Your task to perform on an android device: Show me recent news Image 0: 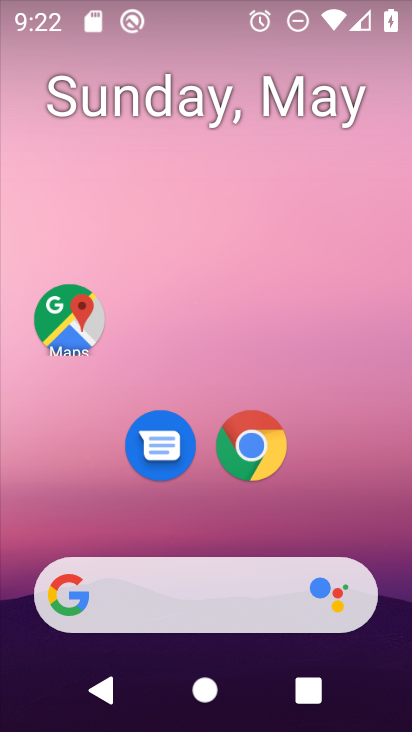
Step 0: drag from (187, 518) to (224, 243)
Your task to perform on an android device: Show me recent news Image 1: 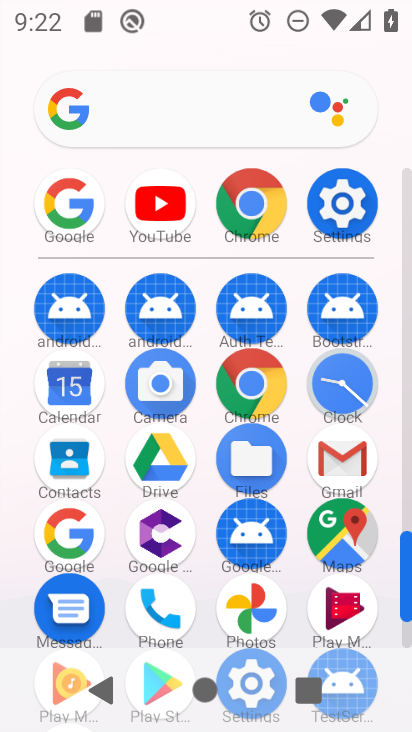
Step 1: click (89, 528)
Your task to perform on an android device: Show me recent news Image 2: 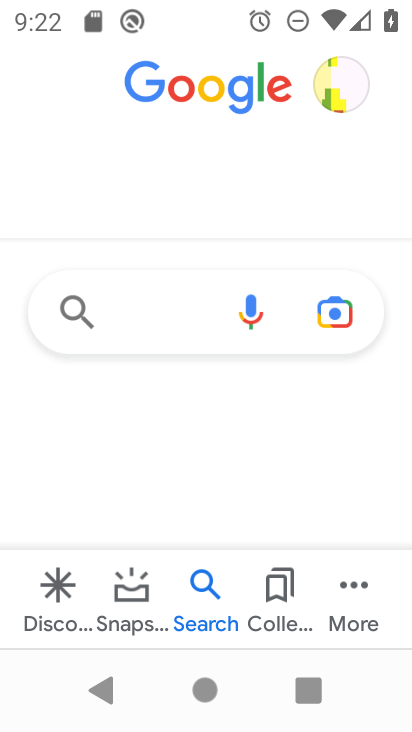
Step 2: click (189, 311)
Your task to perform on an android device: Show me recent news Image 3: 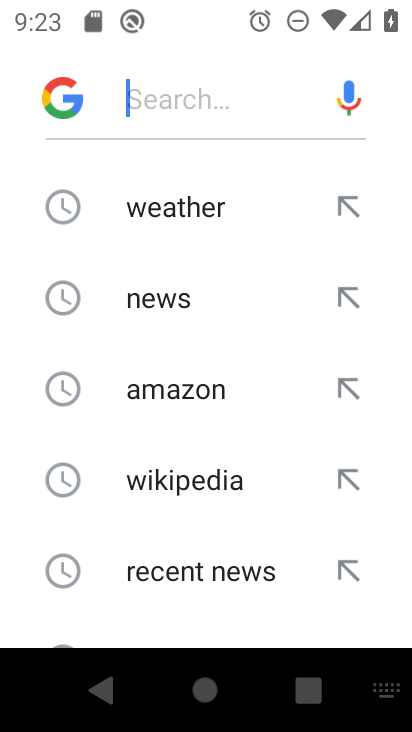
Step 3: click (206, 312)
Your task to perform on an android device: Show me recent news Image 4: 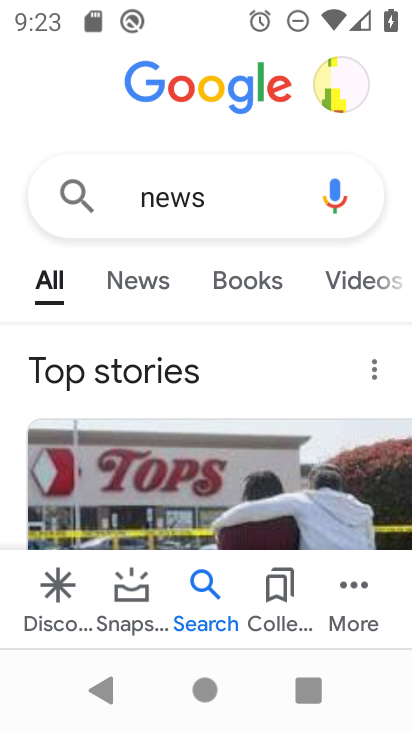
Step 4: click (140, 279)
Your task to perform on an android device: Show me recent news Image 5: 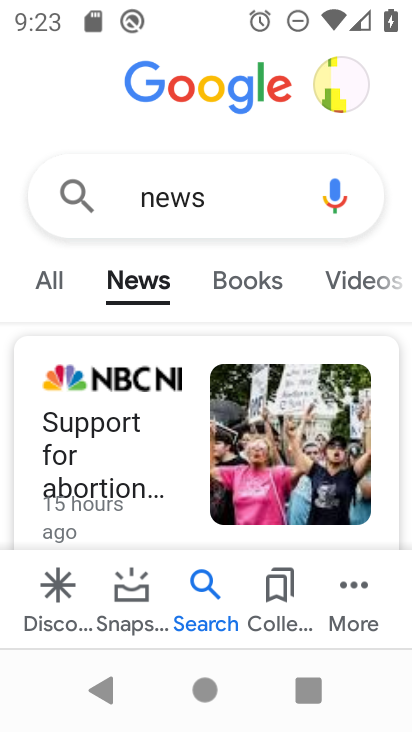
Step 5: task complete